Your task to perform on an android device: Open location settings Image 0: 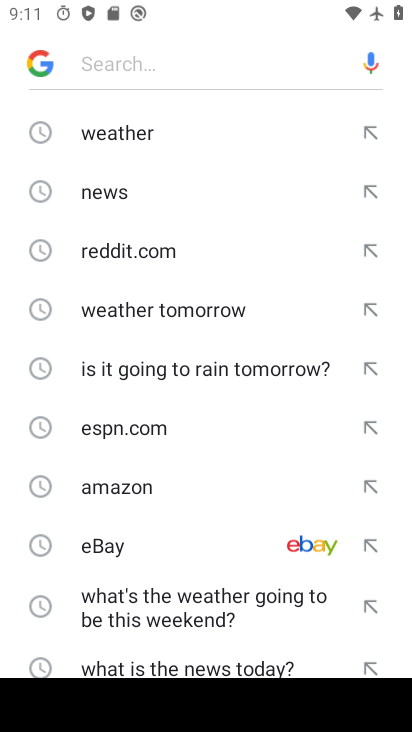
Step 0: press home button
Your task to perform on an android device: Open location settings Image 1: 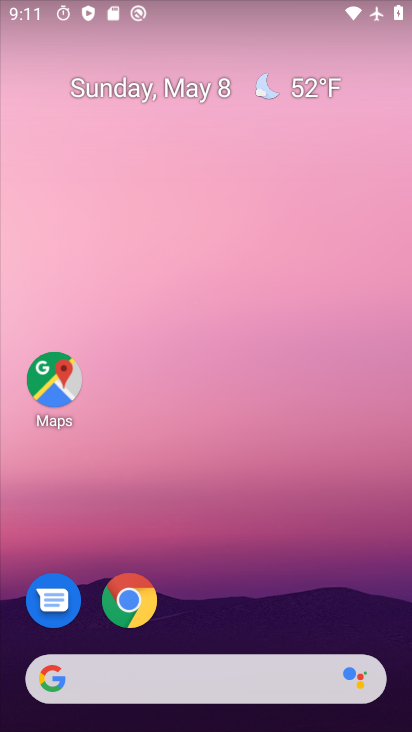
Step 1: drag from (182, 596) to (197, 136)
Your task to perform on an android device: Open location settings Image 2: 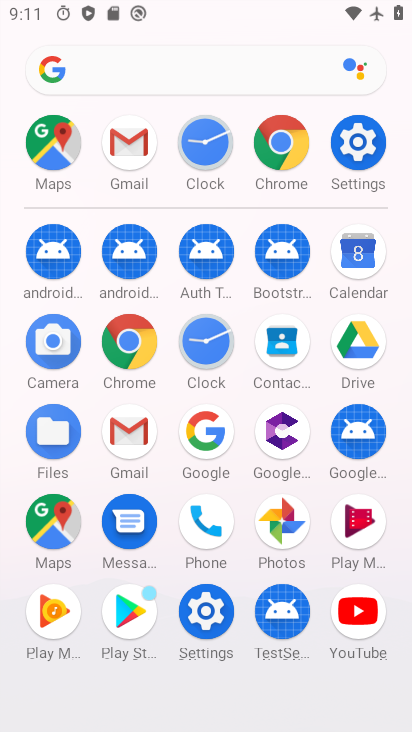
Step 2: click (356, 161)
Your task to perform on an android device: Open location settings Image 3: 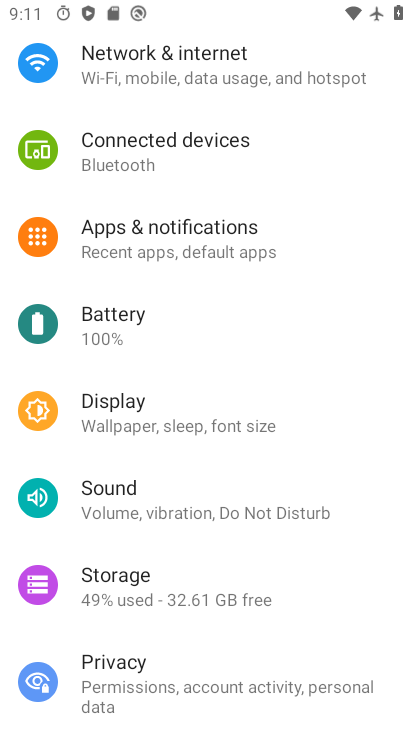
Step 3: drag from (240, 364) to (246, 171)
Your task to perform on an android device: Open location settings Image 4: 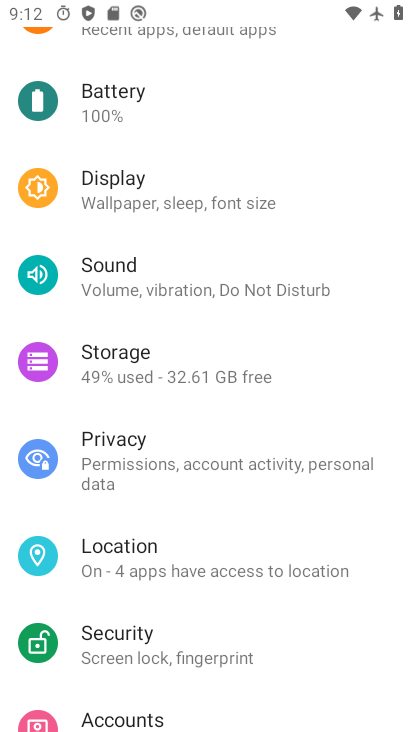
Step 4: click (175, 562)
Your task to perform on an android device: Open location settings Image 5: 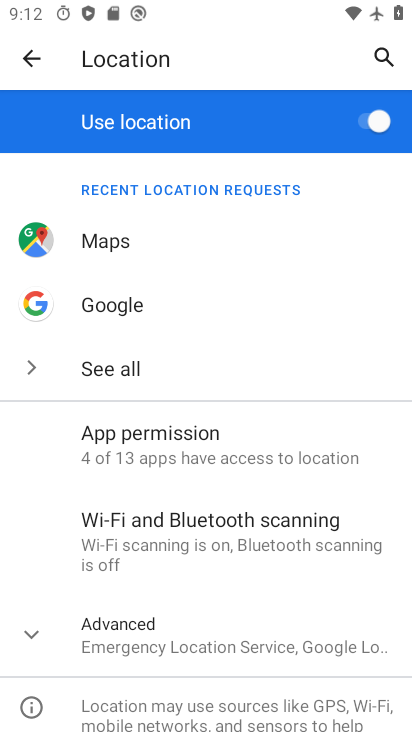
Step 5: task complete